Your task to perform on an android device: Open Maps and search for coffee Image 0: 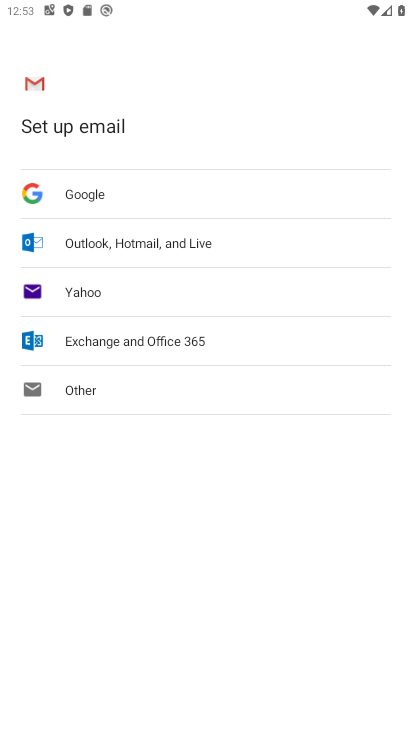
Step 0: press home button
Your task to perform on an android device: Open Maps and search for coffee Image 1: 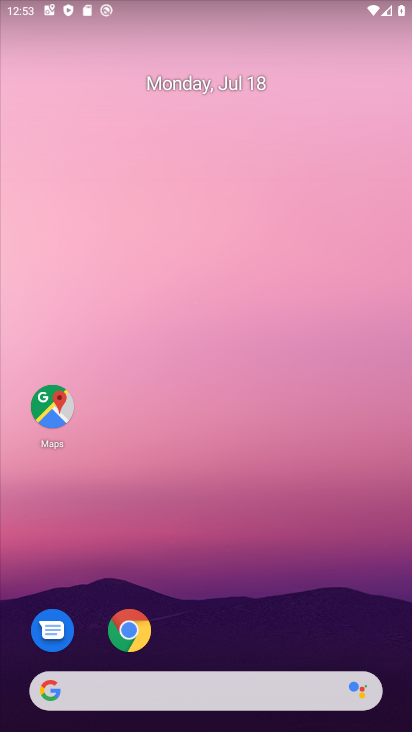
Step 1: click (58, 411)
Your task to perform on an android device: Open Maps and search for coffee Image 2: 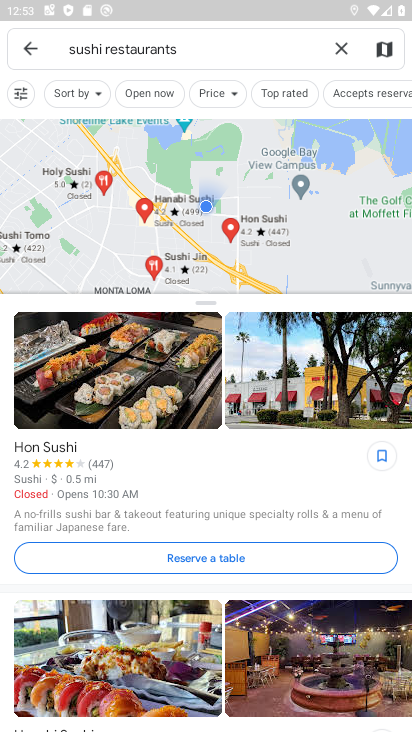
Step 2: click (341, 43)
Your task to perform on an android device: Open Maps and search for coffee Image 3: 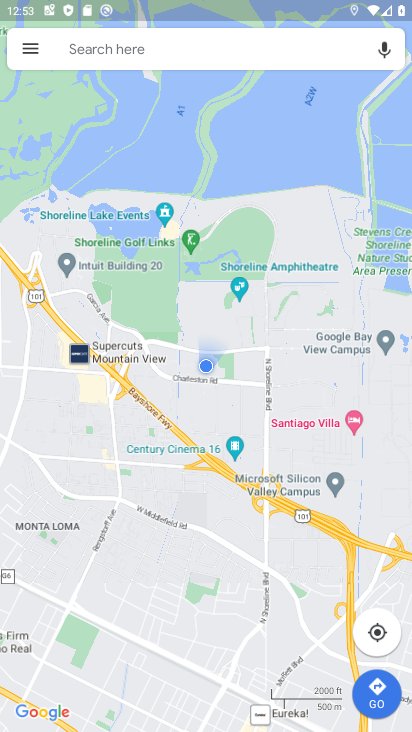
Step 3: click (271, 56)
Your task to perform on an android device: Open Maps and search for coffee Image 4: 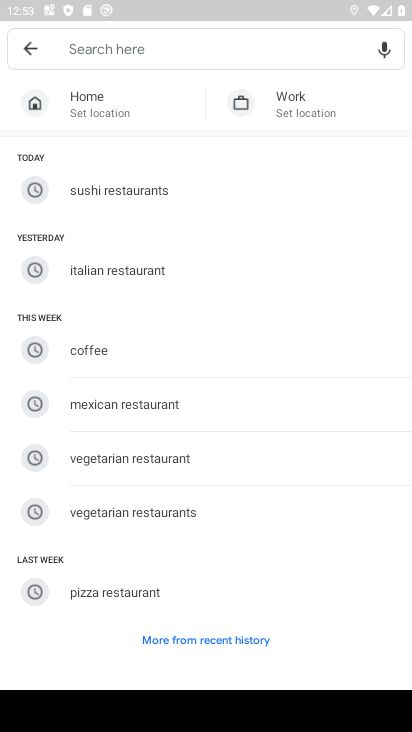
Step 4: click (296, 353)
Your task to perform on an android device: Open Maps and search for coffee Image 5: 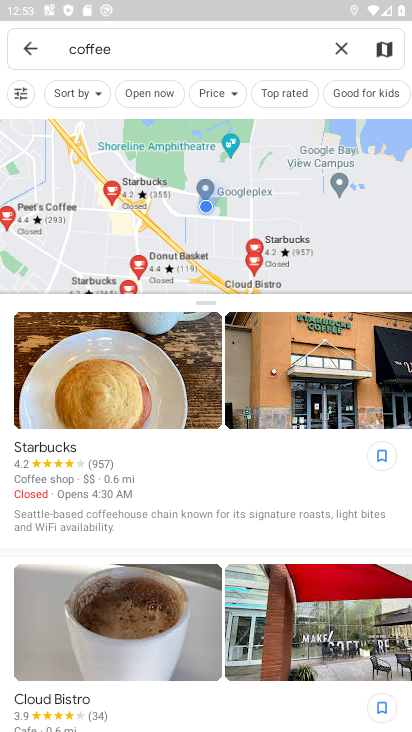
Step 5: task complete